Your task to perform on an android device: Clear the shopping cart on target. Image 0: 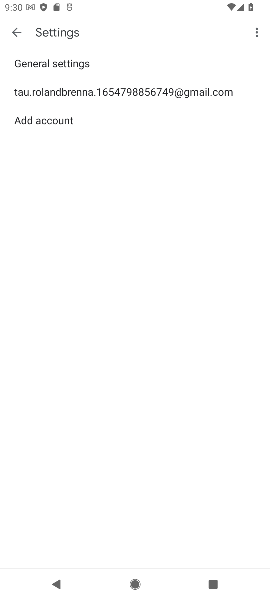
Step 0: press home button
Your task to perform on an android device: Clear the shopping cart on target. Image 1: 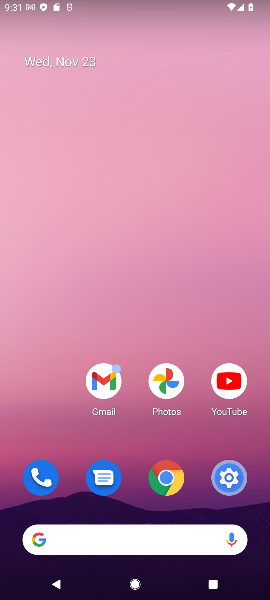
Step 1: click (148, 547)
Your task to perform on an android device: Clear the shopping cart on target. Image 2: 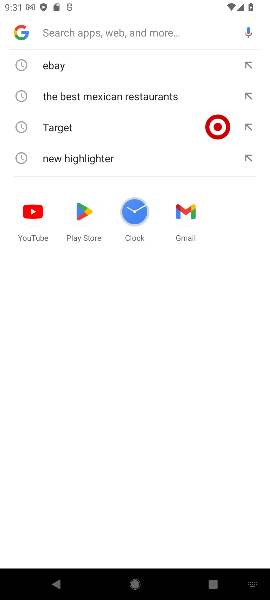
Step 2: type "target"
Your task to perform on an android device: Clear the shopping cart on target. Image 3: 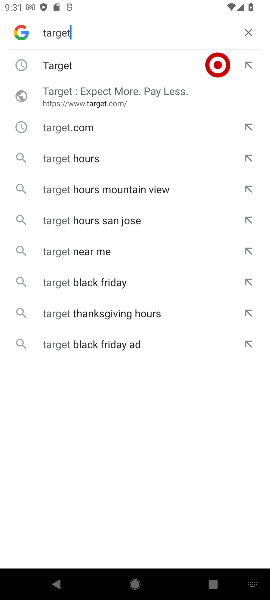
Step 3: click (86, 69)
Your task to perform on an android device: Clear the shopping cart on target. Image 4: 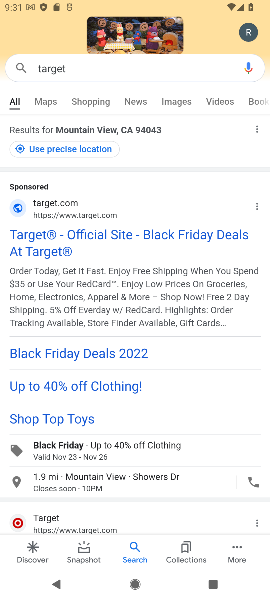
Step 4: click (61, 243)
Your task to perform on an android device: Clear the shopping cart on target. Image 5: 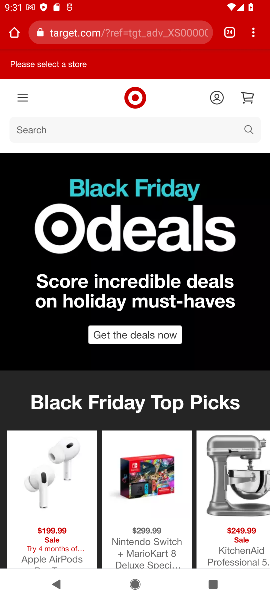
Step 5: click (246, 88)
Your task to perform on an android device: Clear the shopping cart on target. Image 6: 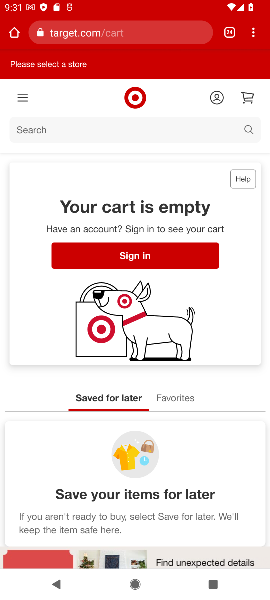
Step 6: task complete